Your task to perform on an android device: Go to notification settings Image 0: 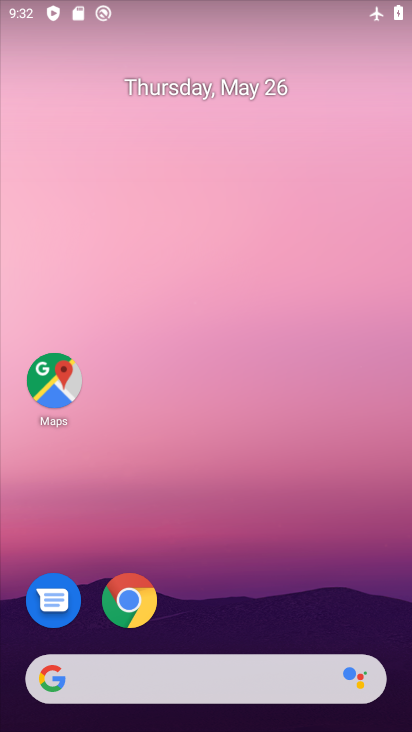
Step 0: drag from (295, 410) to (286, 41)
Your task to perform on an android device: Go to notification settings Image 1: 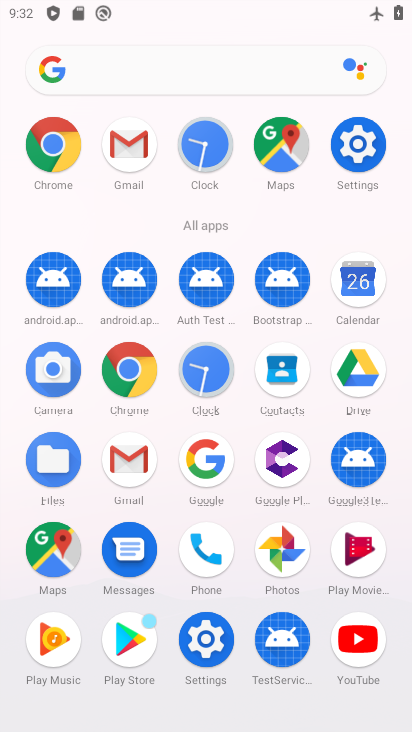
Step 1: click (362, 148)
Your task to perform on an android device: Go to notification settings Image 2: 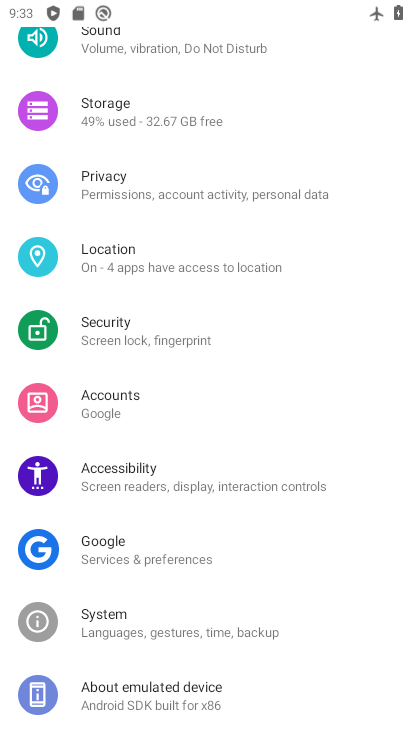
Step 2: drag from (208, 141) to (221, 727)
Your task to perform on an android device: Go to notification settings Image 3: 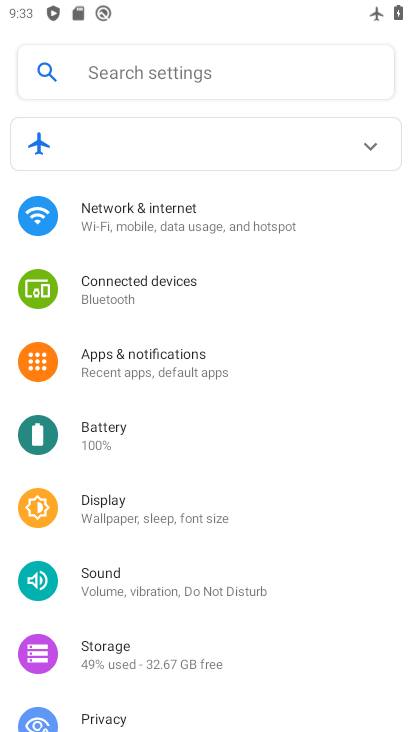
Step 3: click (173, 374)
Your task to perform on an android device: Go to notification settings Image 4: 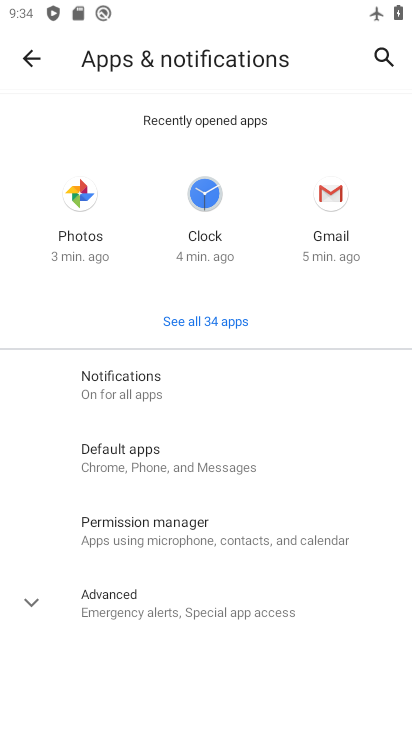
Step 4: click (155, 397)
Your task to perform on an android device: Go to notification settings Image 5: 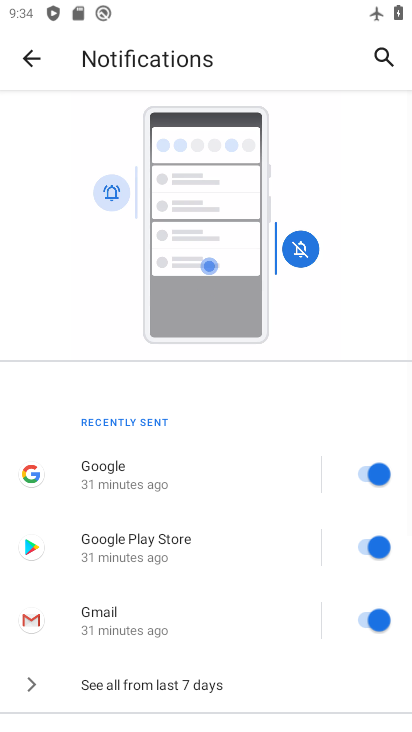
Step 5: task complete